Your task to perform on an android device: Show me productivity apps on the Play Store Image 0: 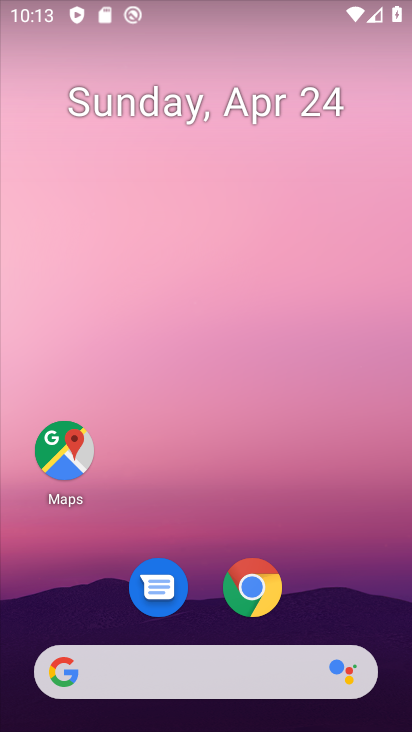
Step 0: drag from (354, 580) to (263, 19)
Your task to perform on an android device: Show me productivity apps on the Play Store Image 1: 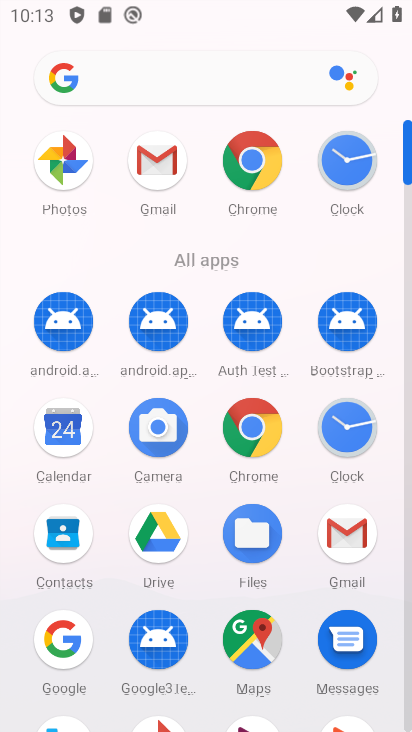
Step 1: drag from (193, 261) to (188, 1)
Your task to perform on an android device: Show me productivity apps on the Play Store Image 2: 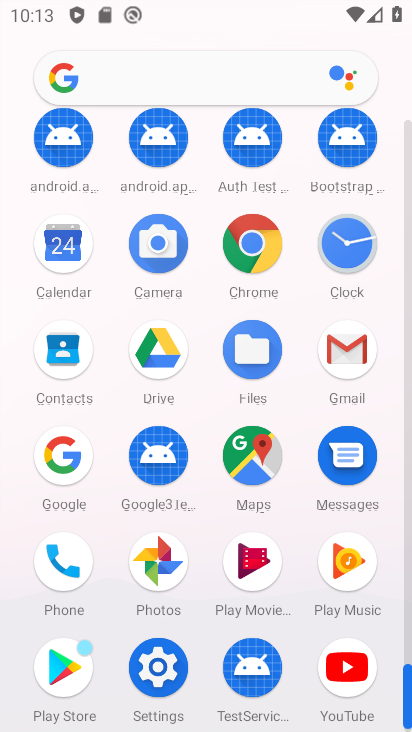
Step 2: click (75, 676)
Your task to perform on an android device: Show me productivity apps on the Play Store Image 3: 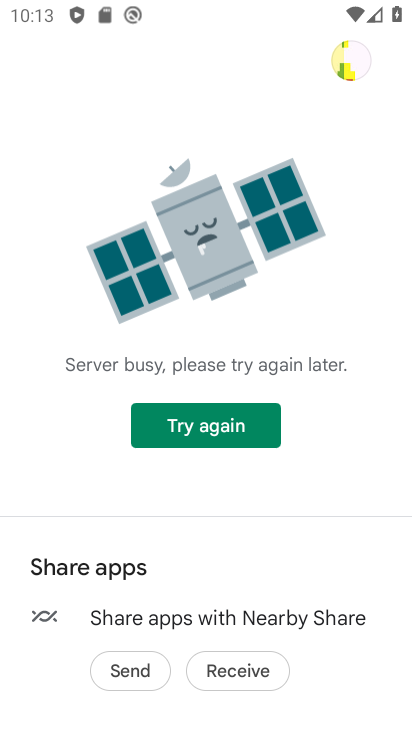
Step 3: click (245, 425)
Your task to perform on an android device: Show me productivity apps on the Play Store Image 4: 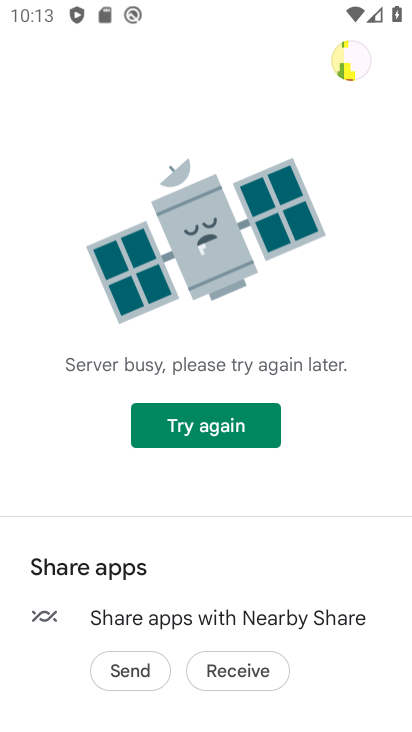
Step 4: task complete